Your task to perform on an android device: Open my contact list Image 0: 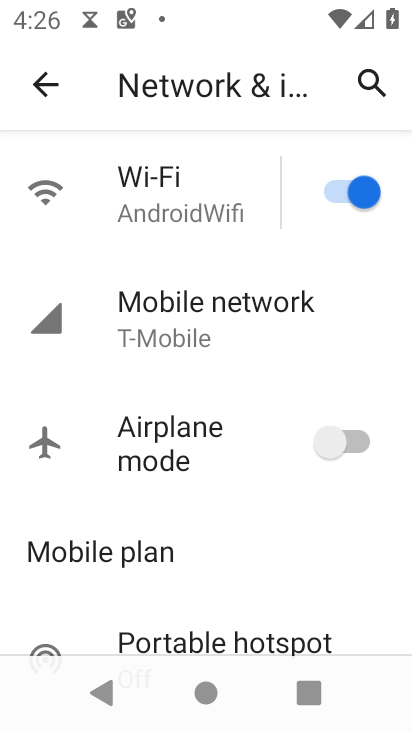
Step 0: press home button
Your task to perform on an android device: Open my contact list Image 1: 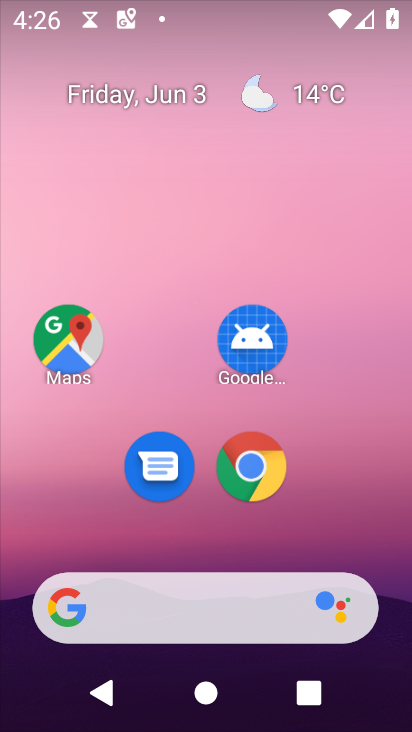
Step 1: press home button
Your task to perform on an android device: Open my contact list Image 2: 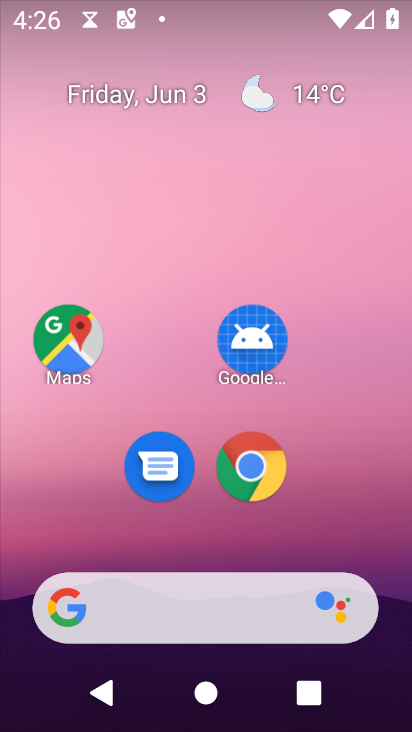
Step 2: drag from (338, 438) to (331, 116)
Your task to perform on an android device: Open my contact list Image 3: 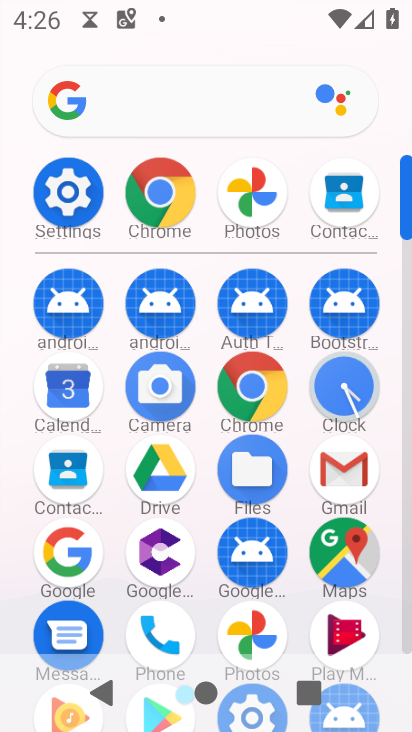
Step 3: click (60, 463)
Your task to perform on an android device: Open my contact list Image 4: 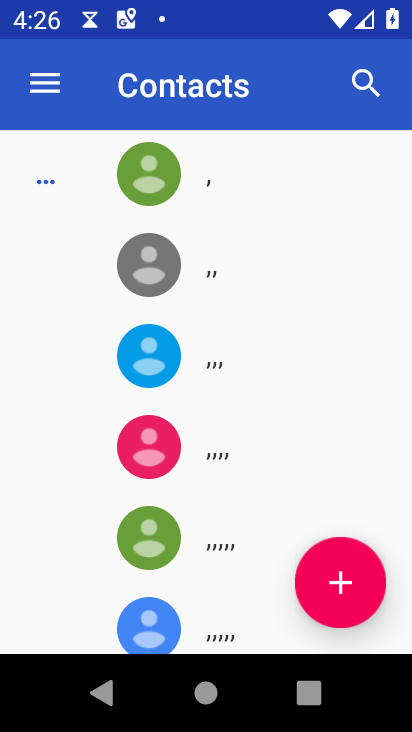
Step 4: task complete